Your task to perform on an android device: Do I have any events tomorrow? Image 0: 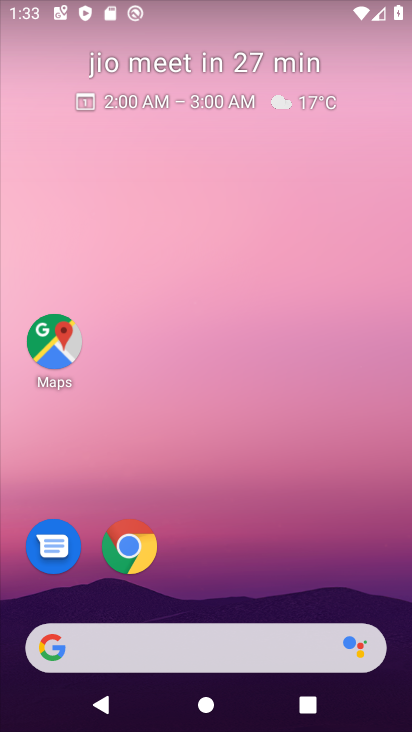
Step 0: drag from (311, 577) to (313, 197)
Your task to perform on an android device: Do I have any events tomorrow? Image 1: 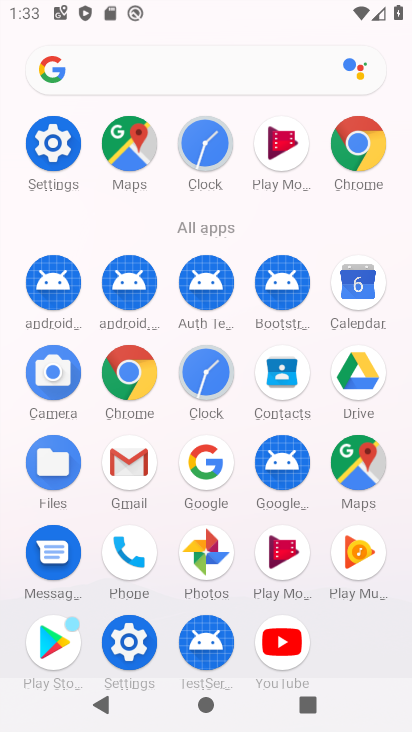
Step 1: click (270, 368)
Your task to perform on an android device: Do I have any events tomorrow? Image 2: 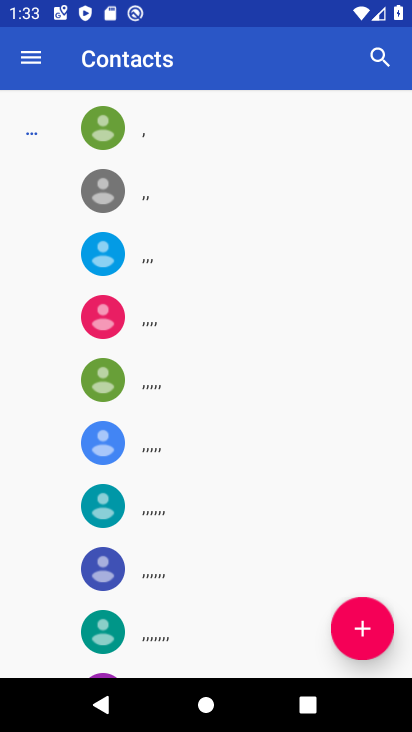
Step 2: press home button
Your task to perform on an android device: Do I have any events tomorrow? Image 3: 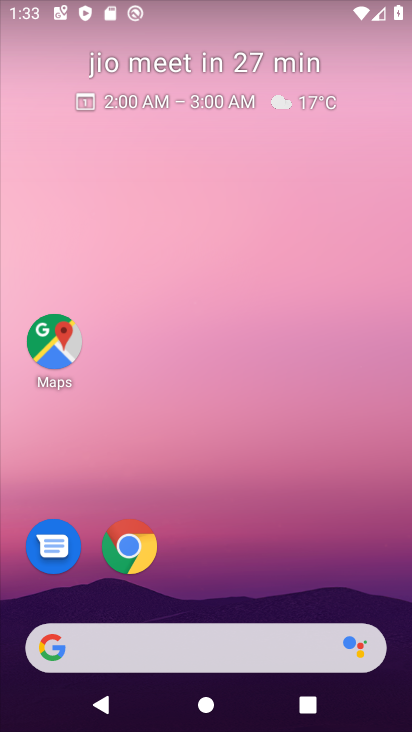
Step 3: drag from (282, 556) to (353, 55)
Your task to perform on an android device: Do I have any events tomorrow? Image 4: 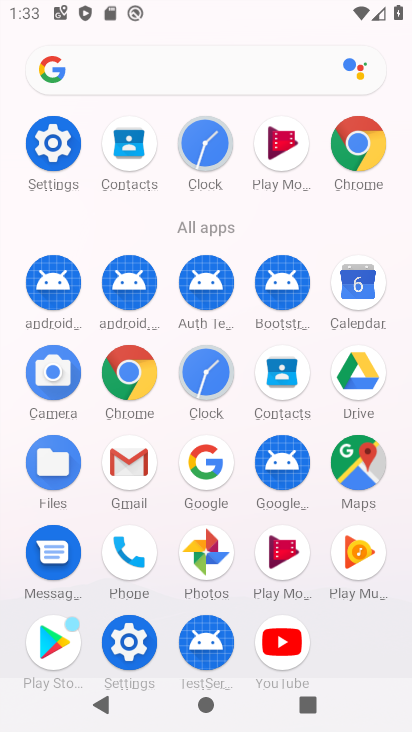
Step 4: click (129, 165)
Your task to perform on an android device: Do I have any events tomorrow? Image 5: 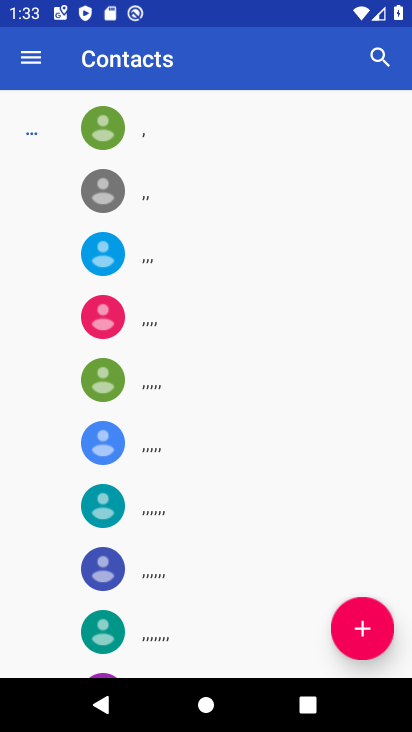
Step 5: press home button
Your task to perform on an android device: Do I have any events tomorrow? Image 6: 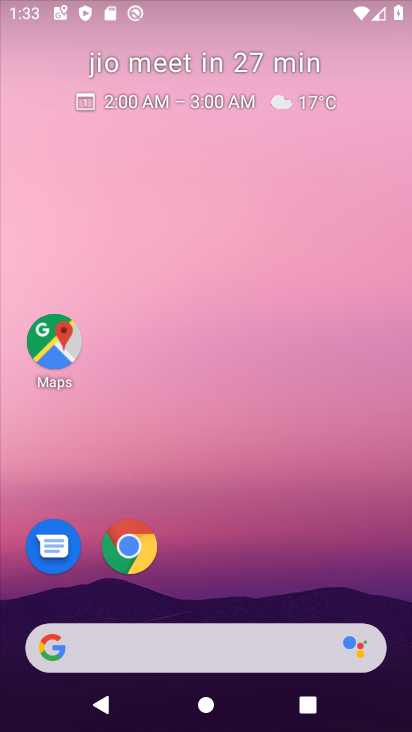
Step 6: drag from (260, 573) to (271, 260)
Your task to perform on an android device: Do I have any events tomorrow? Image 7: 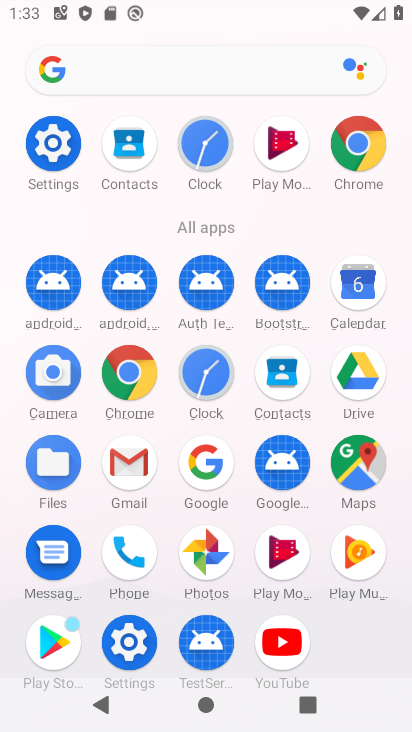
Step 7: click (151, 154)
Your task to perform on an android device: Do I have any events tomorrow? Image 8: 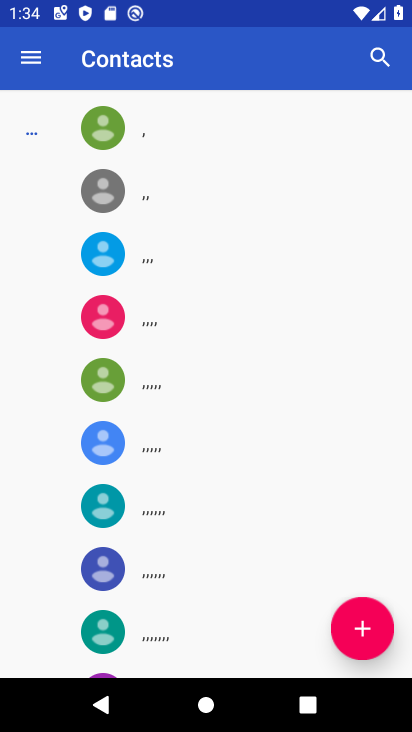
Step 8: task complete